Your task to perform on an android device: empty trash in google photos Image 0: 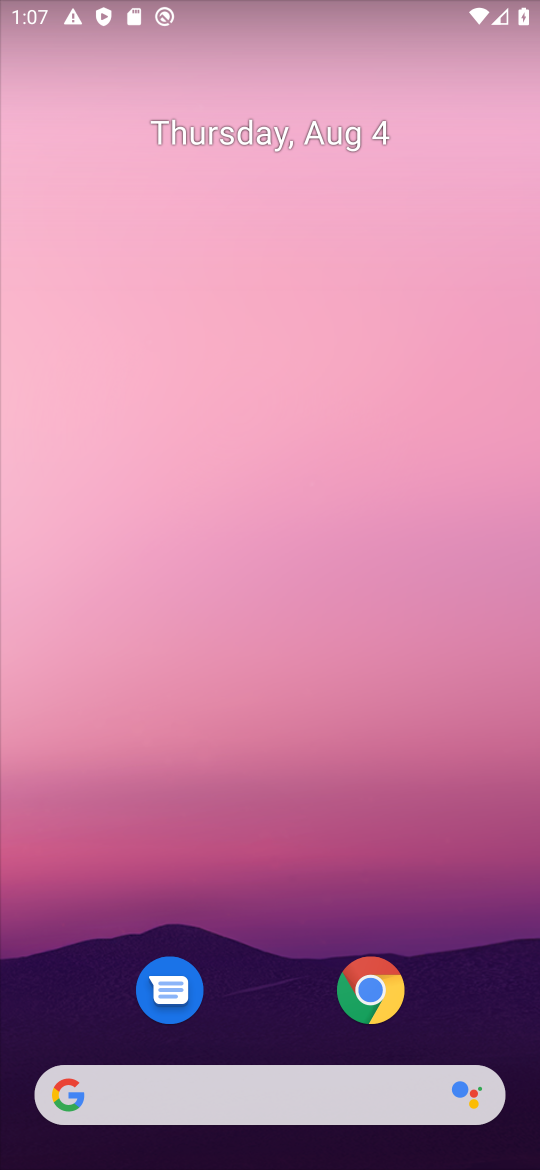
Step 0: drag from (284, 1053) to (272, 102)
Your task to perform on an android device: empty trash in google photos Image 1: 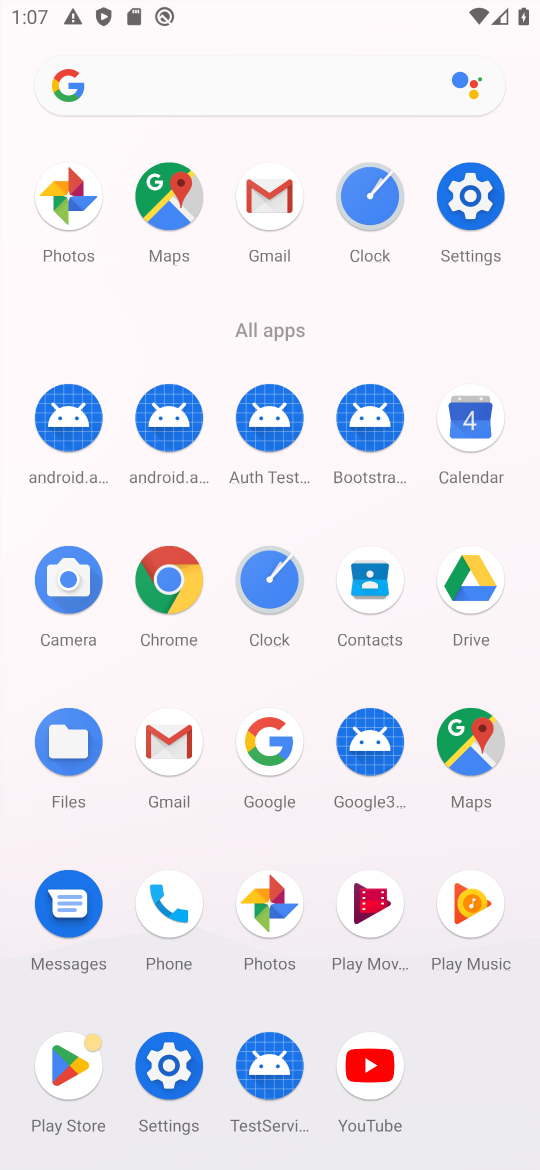
Step 1: click (85, 199)
Your task to perform on an android device: empty trash in google photos Image 2: 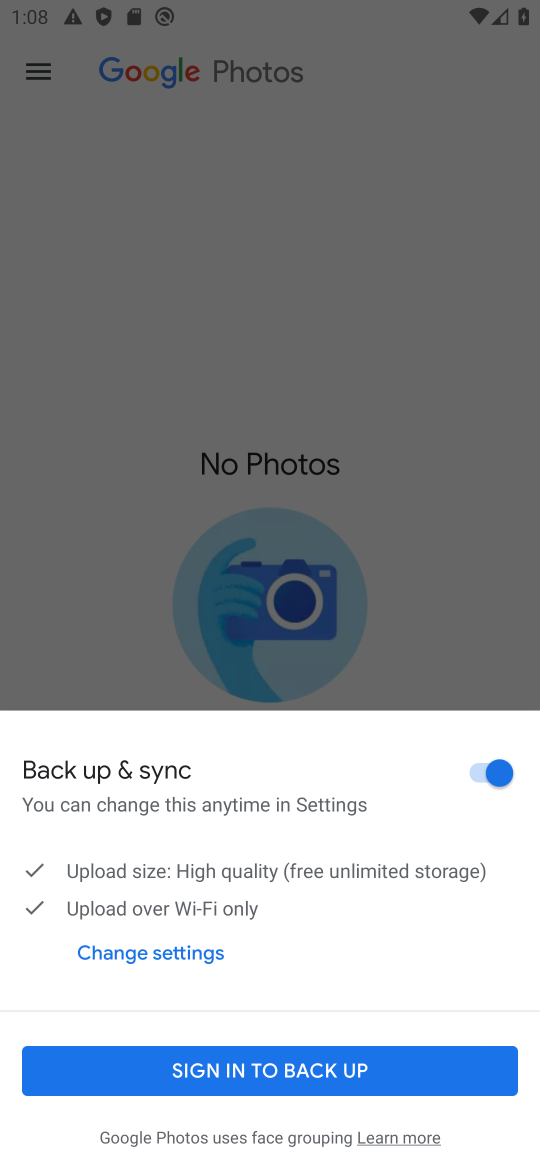
Step 2: task complete